Your task to perform on an android device: When is my next meeting? Image 0: 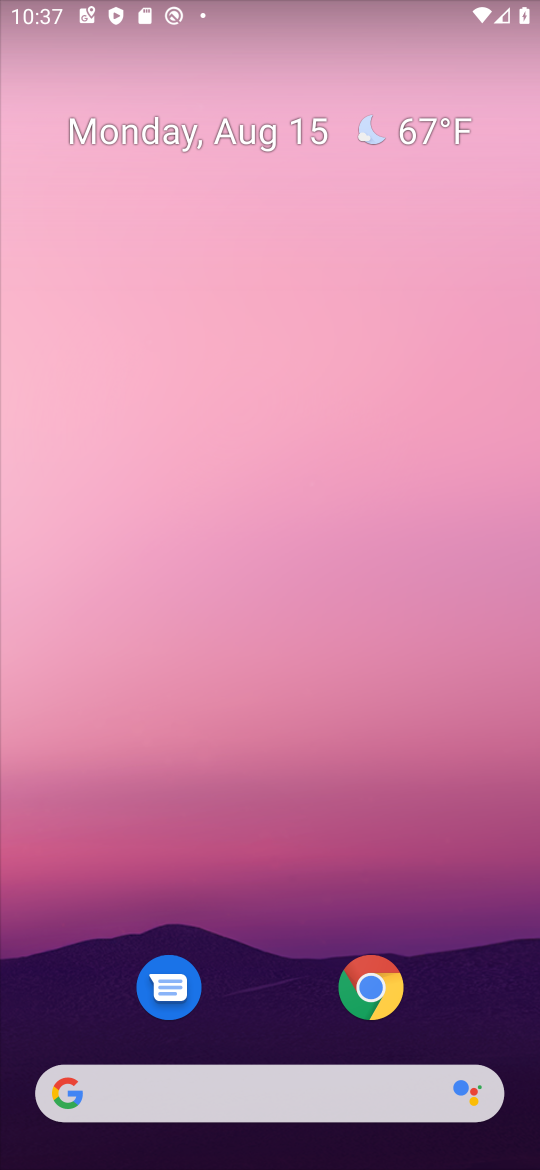
Step 0: drag from (265, 1079) to (538, 207)
Your task to perform on an android device: When is my next meeting? Image 1: 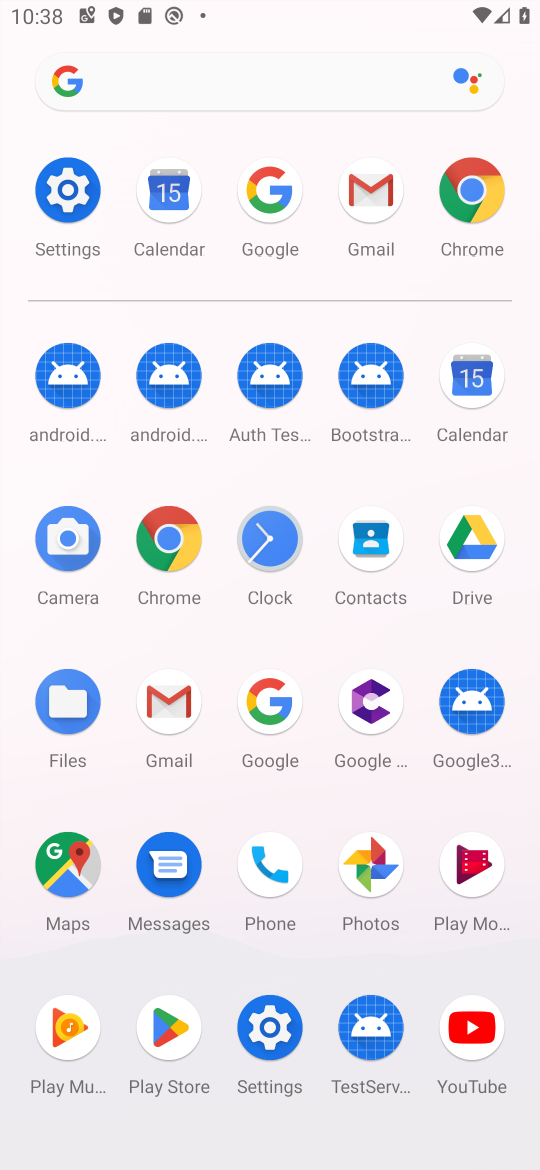
Step 1: click (470, 400)
Your task to perform on an android device: When is my next meeting? Image 2: 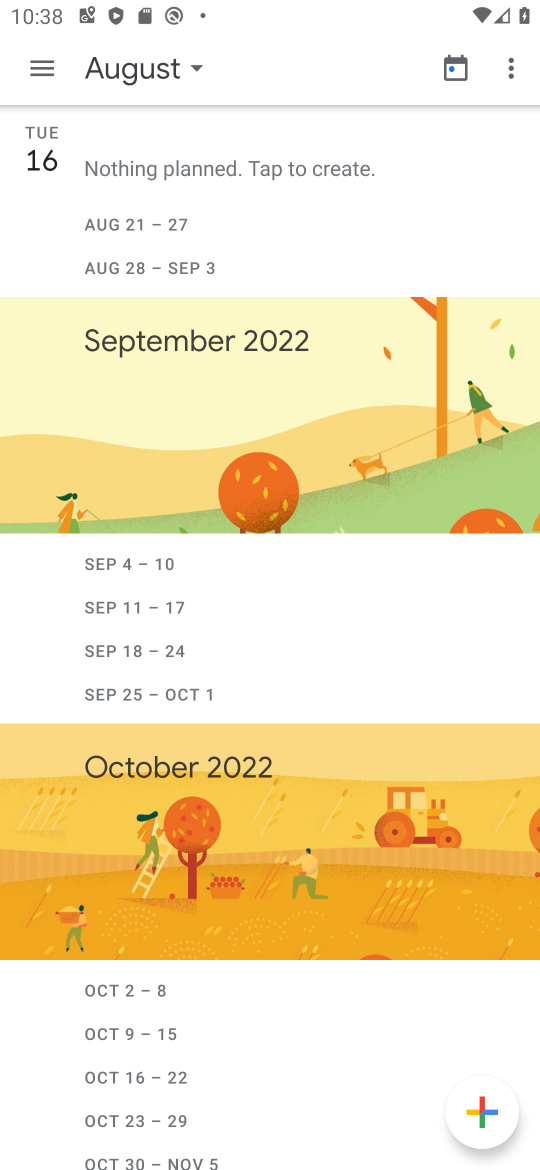
Step 2: click (15, 61)
Your task to perform on an android device: When is my next meeting? Image 3: 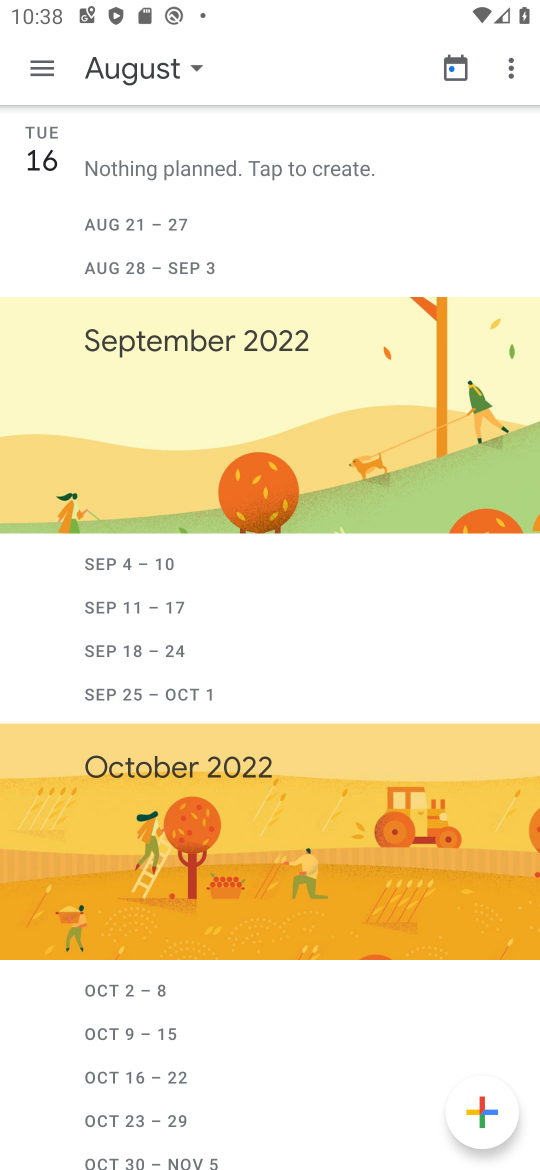
Step 3: click (29, 59)
Your task to perform on an android device: When is my next meeting? Image 4: 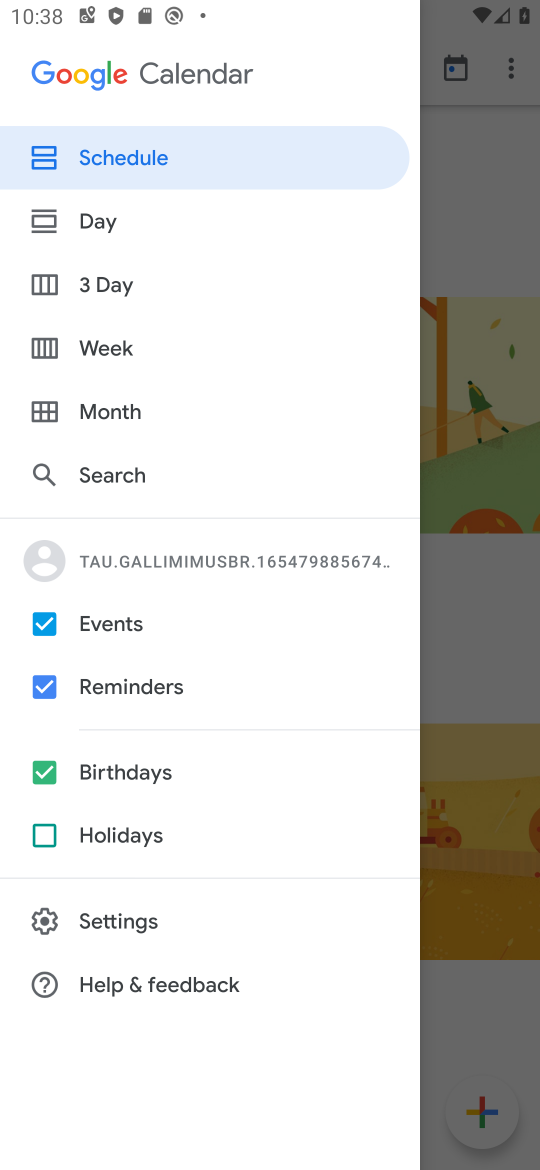
Step 4: click (119, 363)
Your task to perform on an android device: When is my next meeting? Image 5: 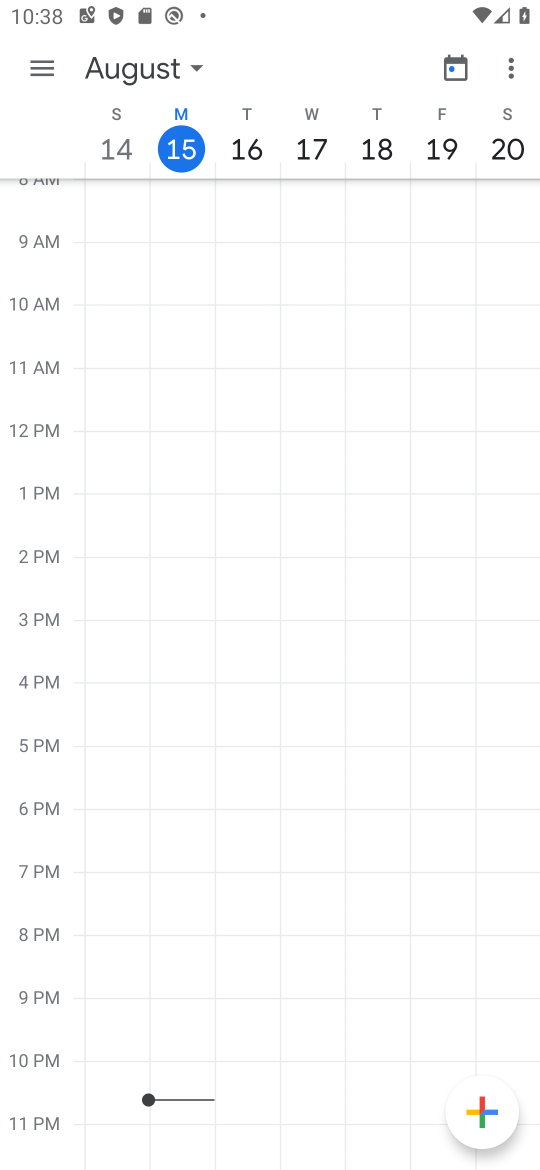
Step 5: task complete